Your task to perform on an android device: turn notification dots off Image 0: 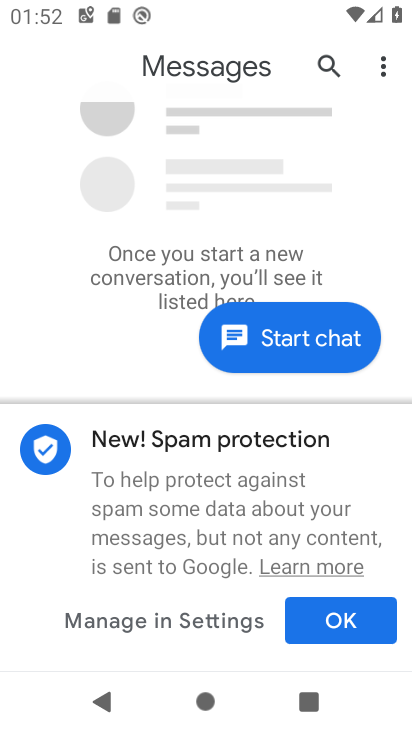
Step 0: press home button
Your task to perform on an android device: turn notification dots off Image 1: 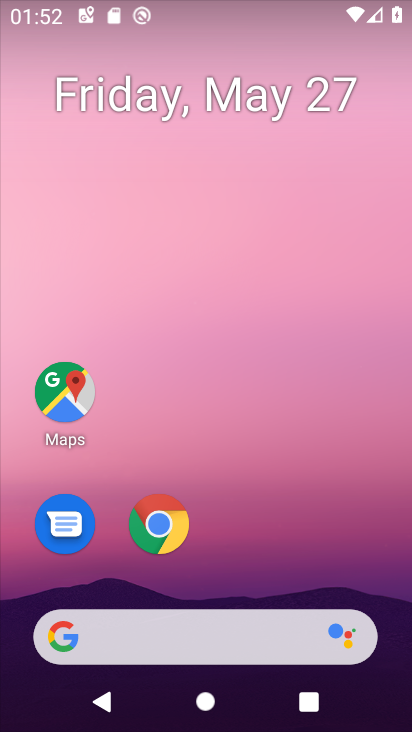
Step 1: drag from (288, 531) to (304, 18)
Your task to perform on an android device: turn notification dots off Image 2: 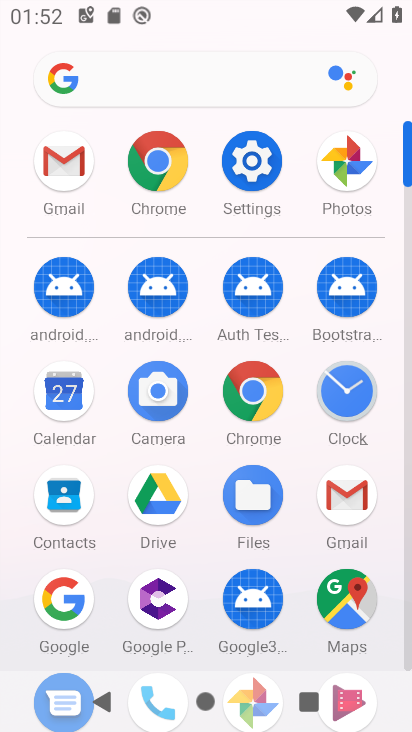
Step 2: click (259, 151)
Your task to perform on an android device: turn notification dots off Image 3: 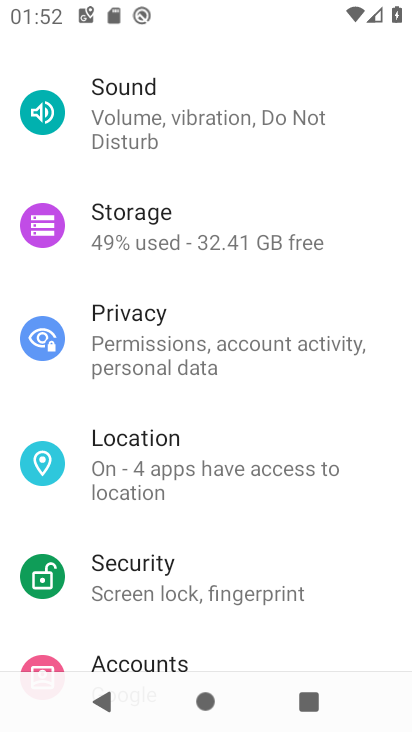
Step 3: drag from (254, 195) to (205, 598)
Your task to perform on an android device: turn notification dots off Image 4: 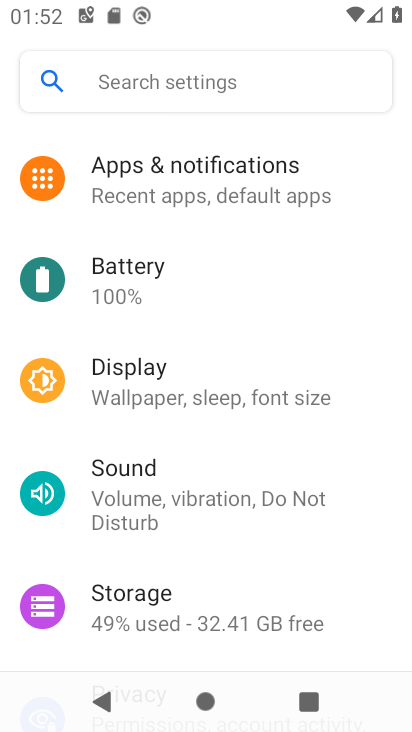
Step 4: click (259, 191)
Your task to perform on an android device: turn notification dots off Image 5: 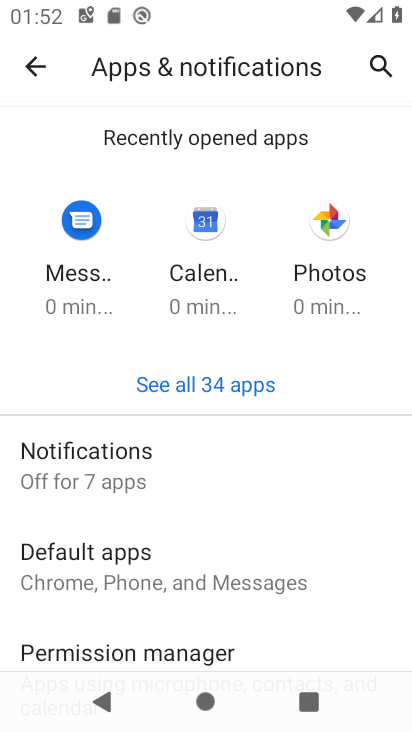
Step 5: click (152, 454)
Your task to perform on an android device: turn notification dots off Image 6: 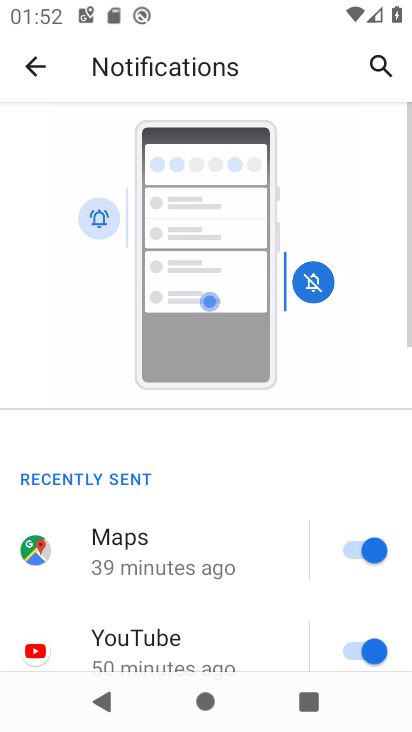
Step 6: drag from (243, 499) to (296, 91)
Your task to perform on an android device: turn notification dots off Image 7: 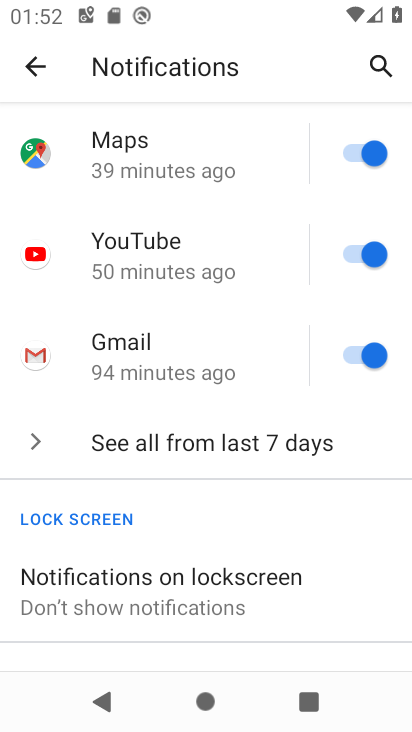
Step 7: drag from (221, 504) to (232, 254)
Your task to perform on an android device: turn notification dots off Image 8: 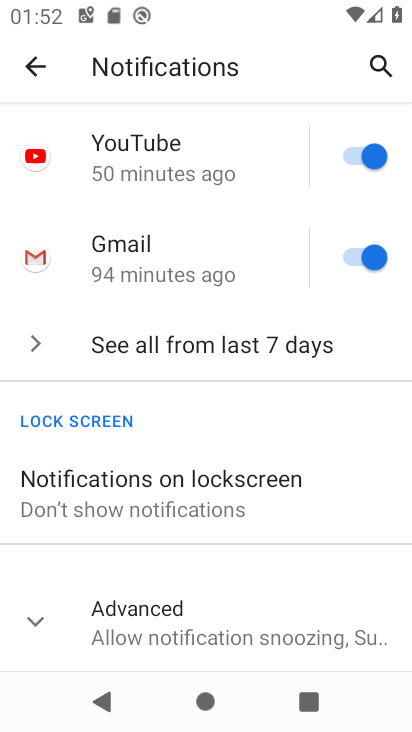
Step 8: click (33, 617)
Your task to perform on an android device: turn notification dots off Image 9: 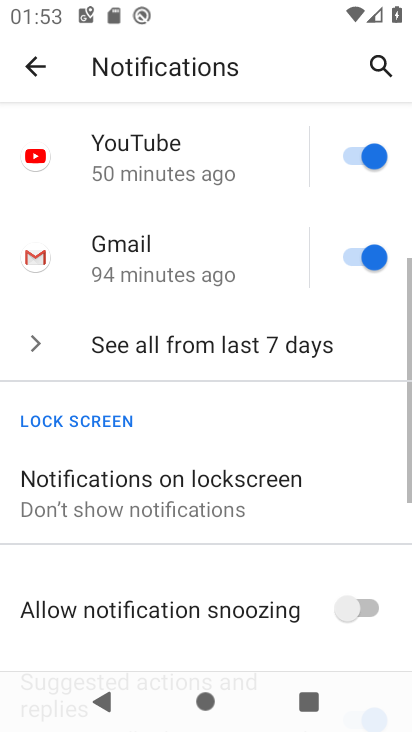
Step 9: drag from (240, 570) to (280, 203)
Your task to perform on an android device: turn notification dots off Image 10: 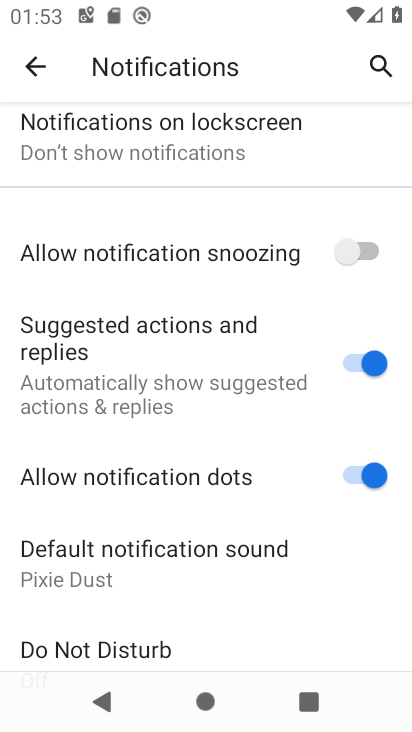
Step 10: click (349, 471)
Your task to perform on an android device: turn notification dots off Image 11: 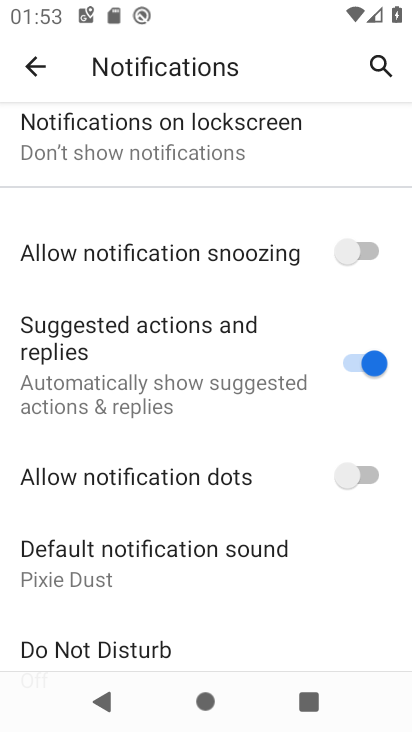
Step 11: task complete